Your task to perform on an android device: Turn off the flashlight Image 0: 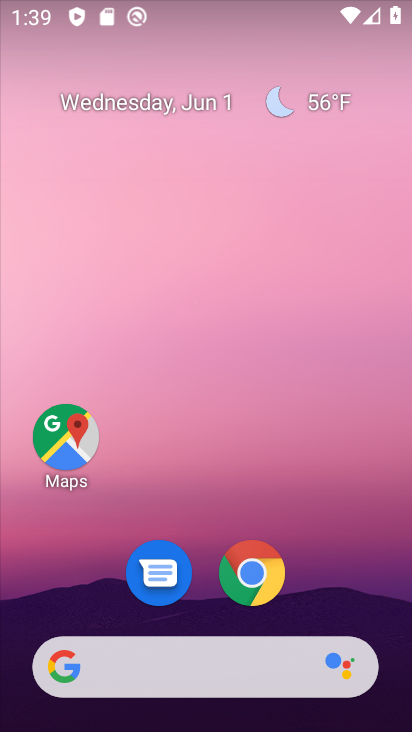
Step 0: drag from (204, 611) to (251, 93)
Your task to perform on an android device: Turn off the flashlight Image 1: 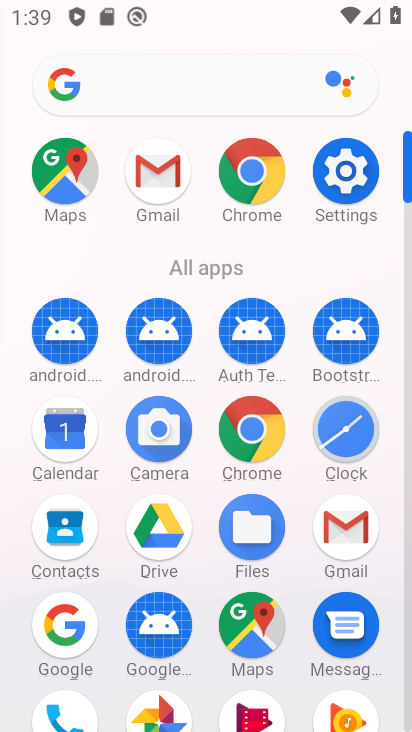
Step 1: click (349, 146)
Your task to perform on an android device: Turn off the flashlight Image 2: 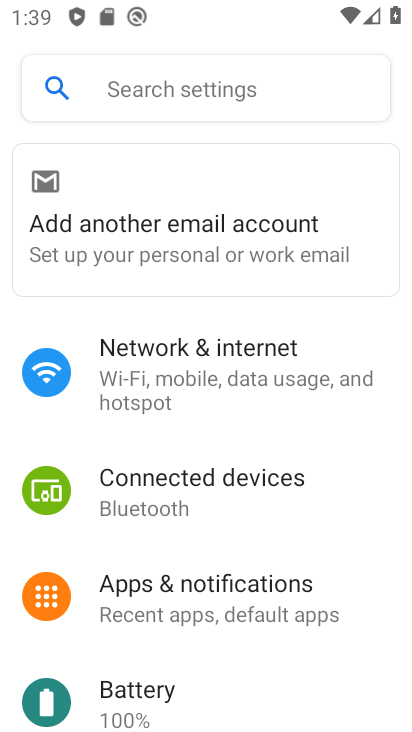
Step 2: click (141, 74)
Your task to perform on an android device: Turn off the flashlight Image 3: 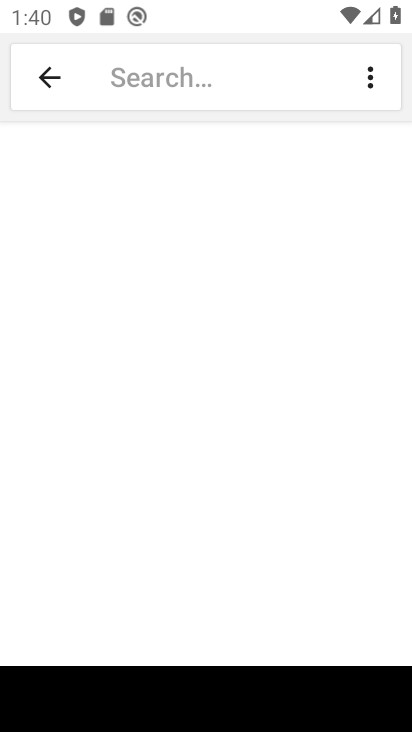
Step 3: type " flashlight"
Your task to perform on an android device: Turn off the flashlight Image 4: 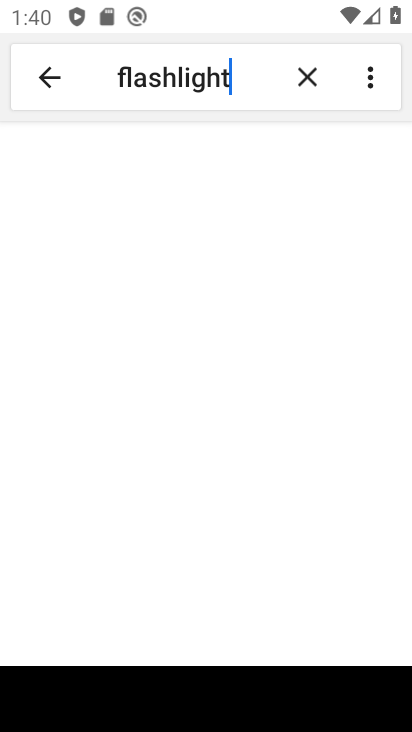
Step 4: type ""
Your task to perform on an android device: Turn off the flashlight Image 5: 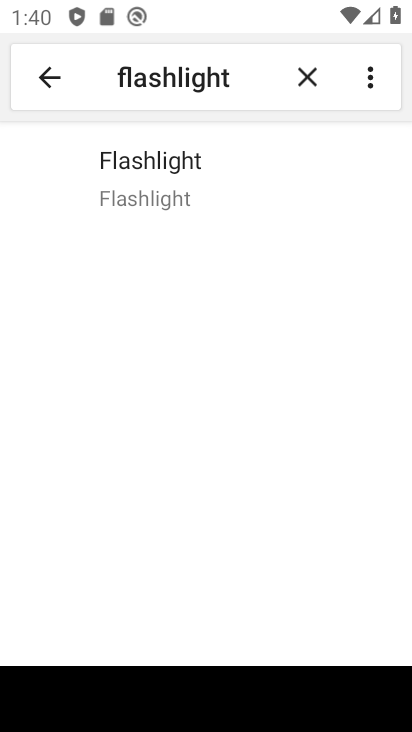
Step 5: click (167, 177)
Your task to perform on an android device: Turn off the flashlight Image 6: 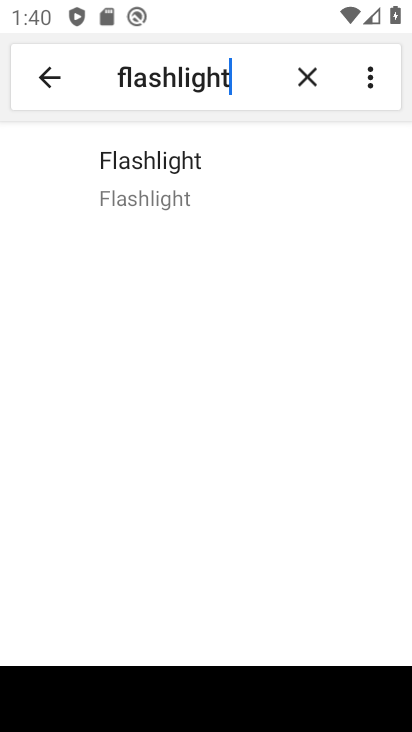
Step 6: task complete